Your task to perform on an android device: Open network settings Image 0: 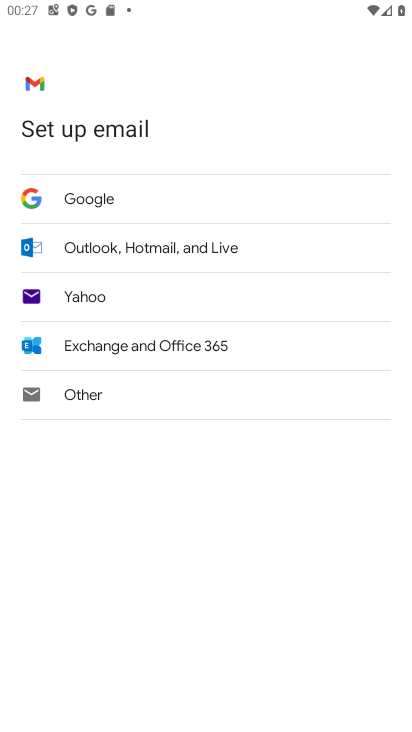
Step 0: press home button
Your task to perform on an android device: Open network settings Image 1: 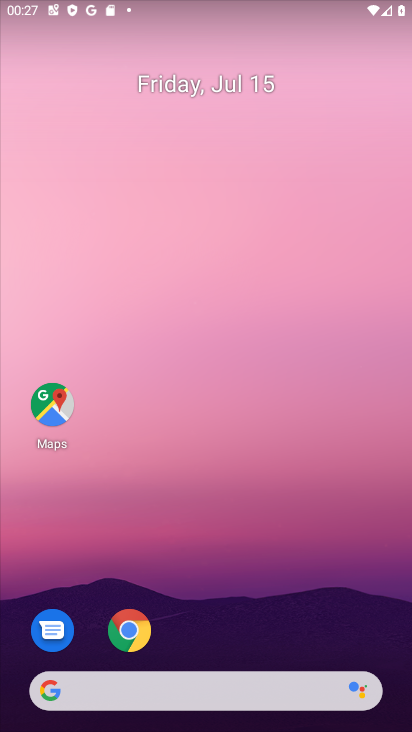
Step 1: drag from (228, 632) to (195, 297)
Your task to perform on an android device: Open network settings Image 2: 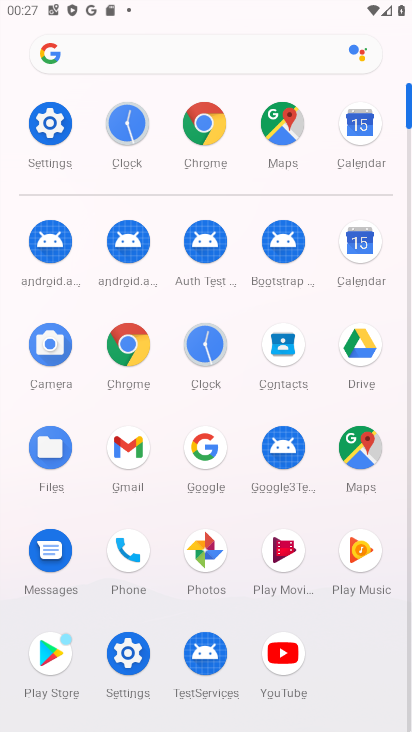
Step 2: click (59, 159)
Your task to perform on an android device: Open network settings Image 3: 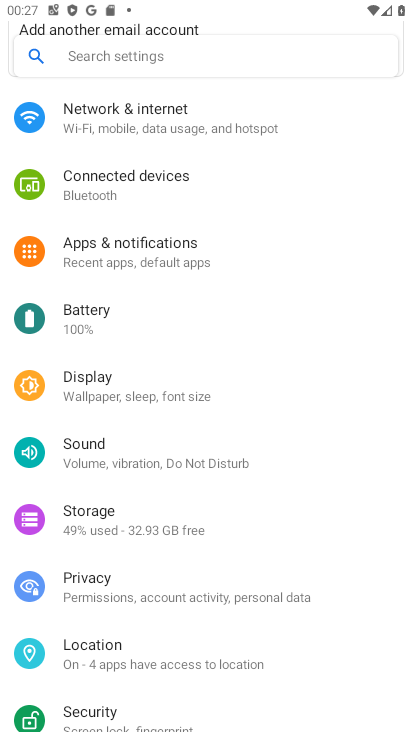
Step 3: click (94, 142)
Your task to perform on an android device: Open network settings Image 4: 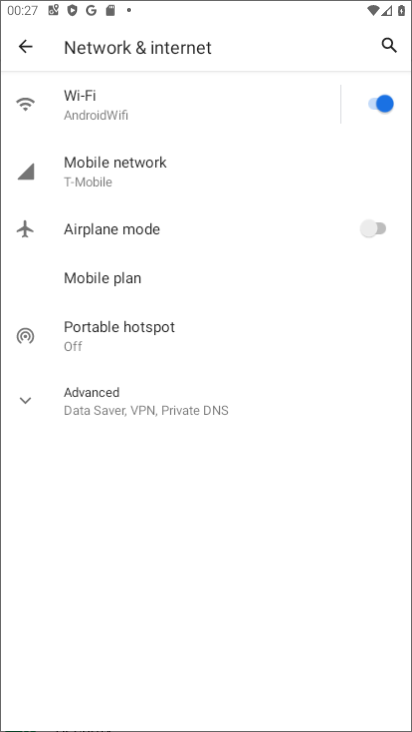
Step 4: task complete